Your task to perform on an android device: find photos in the google photos app Image 0: 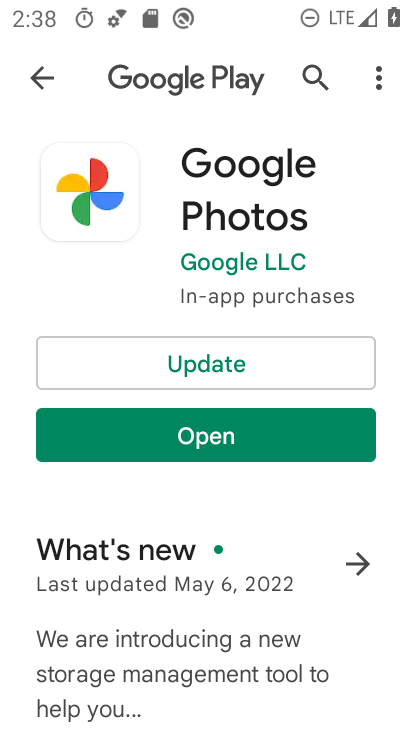
Step 0: press home button
Your task to perform on an android device: find photos in the google photos app Image 1: 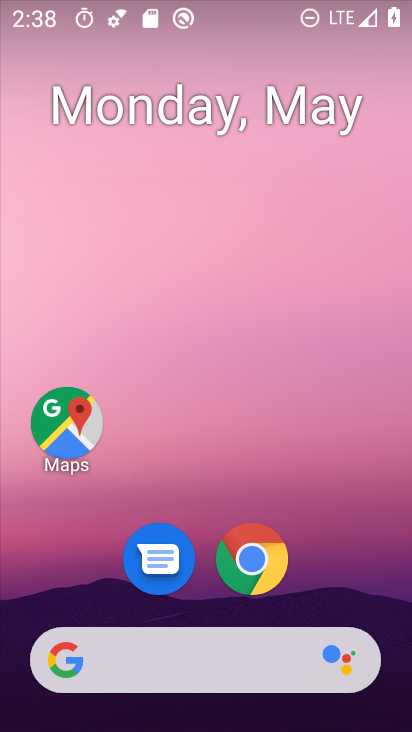
Step 1: drag from (350, 600) to (344, 11)
Your task to perform on an android device: find photos in the google photos app Image 2: 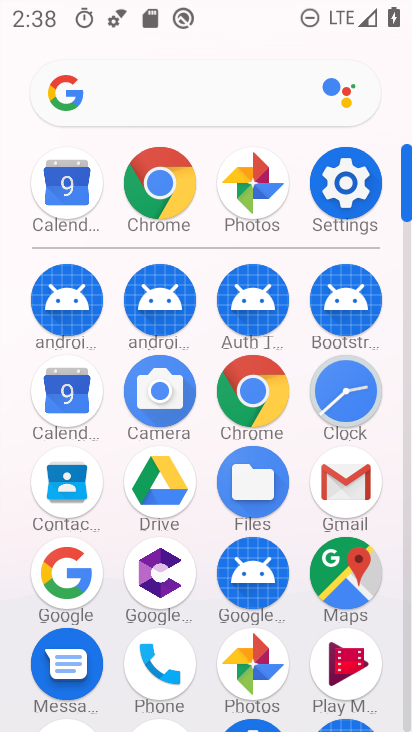
Step 2: click (249, 667)
Your task to perform on an android device: find photos in the google photos app Image 3: 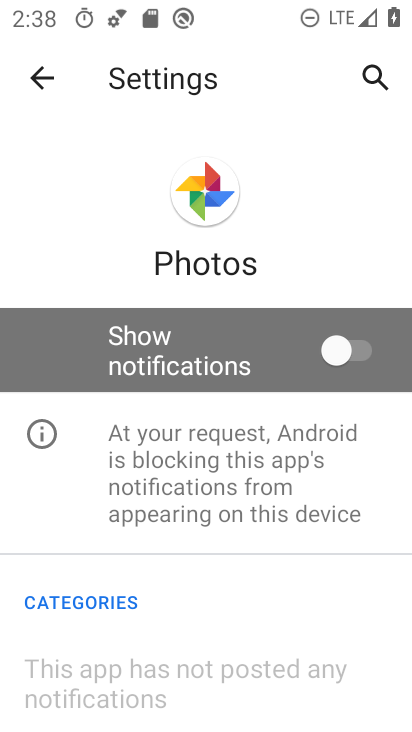
Step 3: click (36, 83)
Your task to perform on an android device: find photos in the google photos app Image 4: 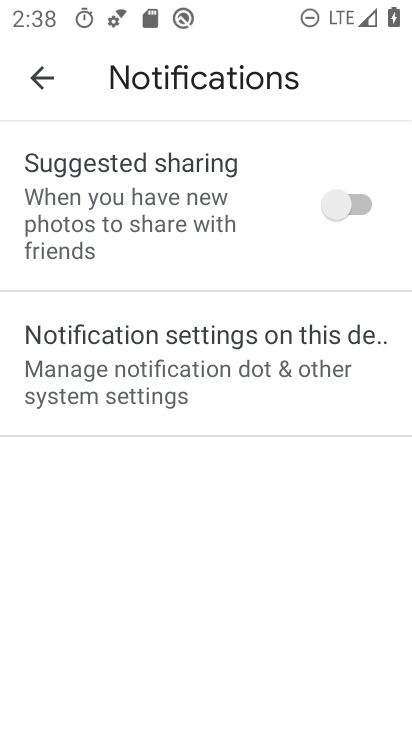
Step 4: click (32, 75)
Your task to perform on an android device: find photos in the google photos app Image 5: 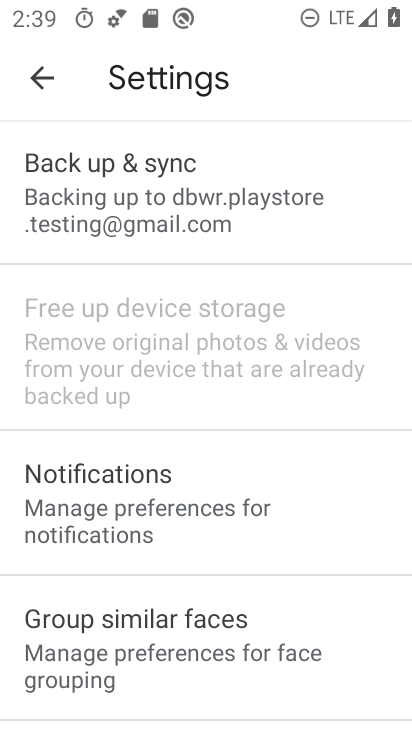
Step 5: click (40, 71)
Your task to perform on an android device: find photos in the google photos app Image 6: 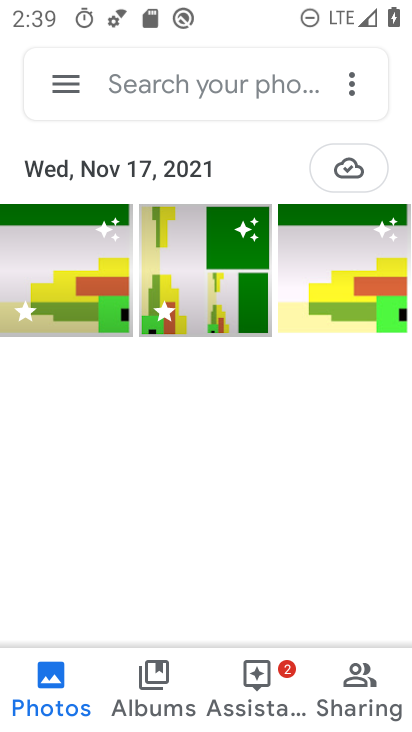
Step 6: click (47, 684)
Your task to perform on an android device: find photos in the google photos app Image 7: 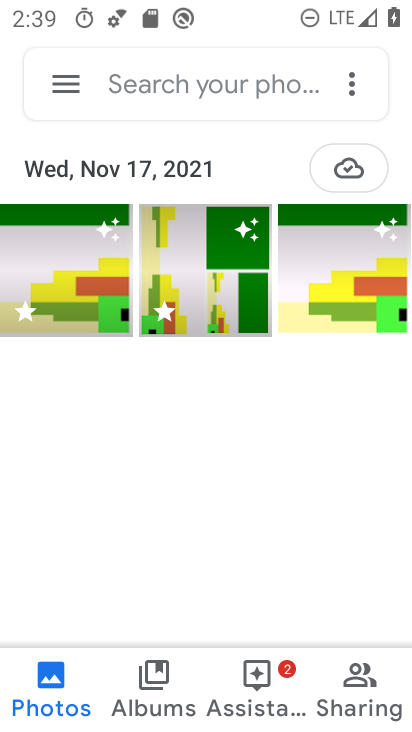
Step 7: task complete